Your task to perform on an android device: change the clock style Image 0: 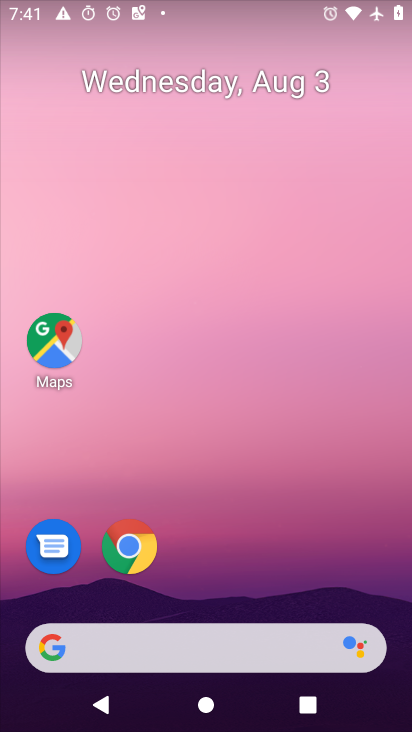
Step 0: drag from (236, 615) to (271, 112)
Your task to perform on an android device: change the clock style Image 1: 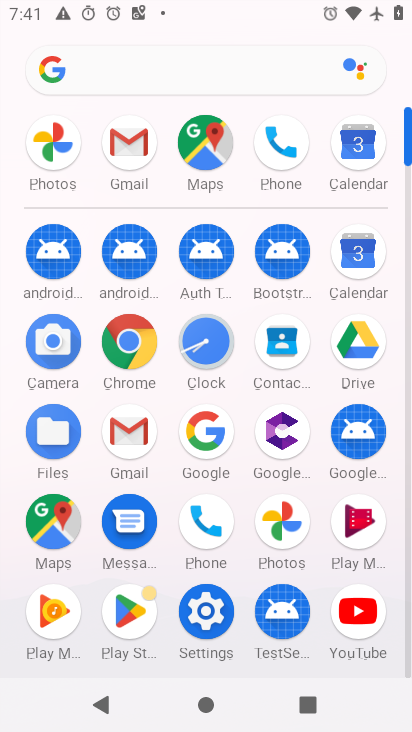
Step 1: click (214, 348)
Your task to perform on an android device: change the clock style Image 2: 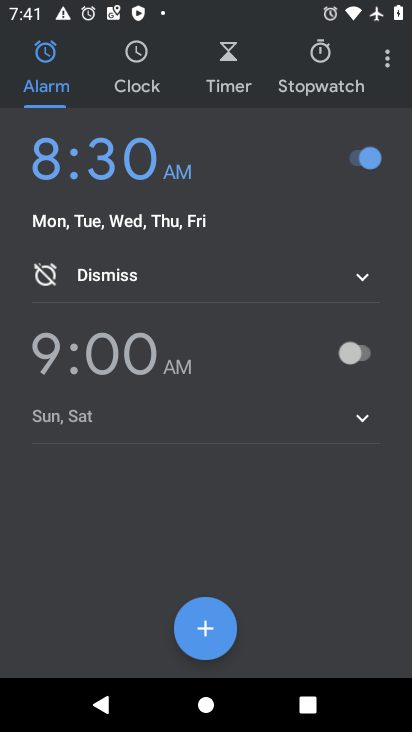
Step 2: click (388, 61)
Your task to perform on an android device: change the clock style Image 3: 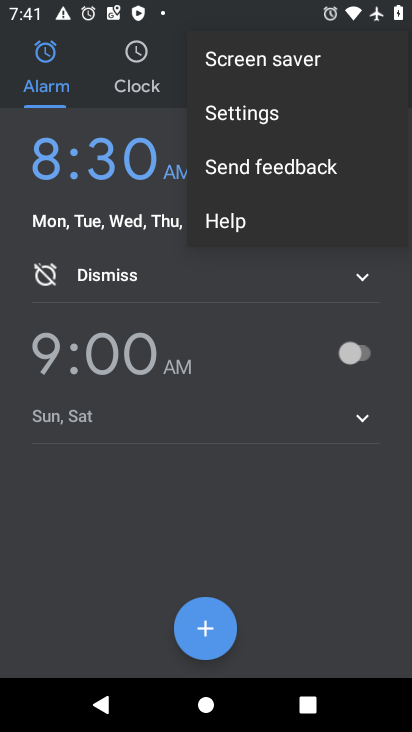
Step 3: click (221, 110)
Your task to perform on an android device: change the clock style Image 4: 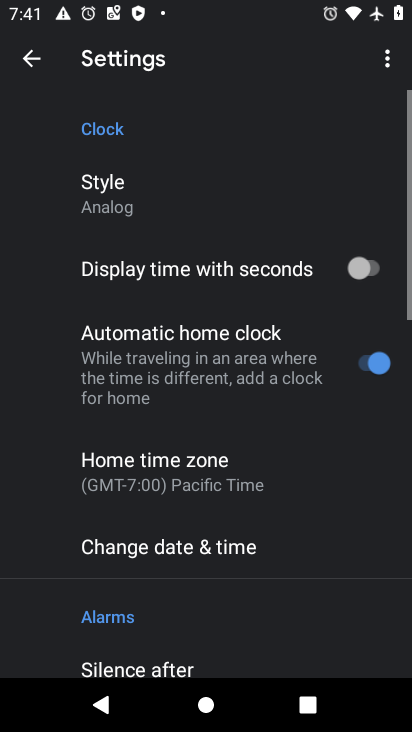
Step 4: click (102, 199)
Your task to perform on an android device: change the clock style Image 5: 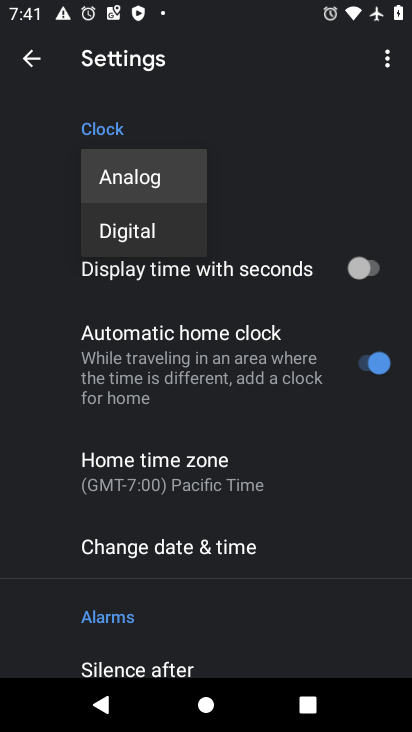
Step 5: click (132, 232)
Your task to perform on an android device: change the clock style Image 6: 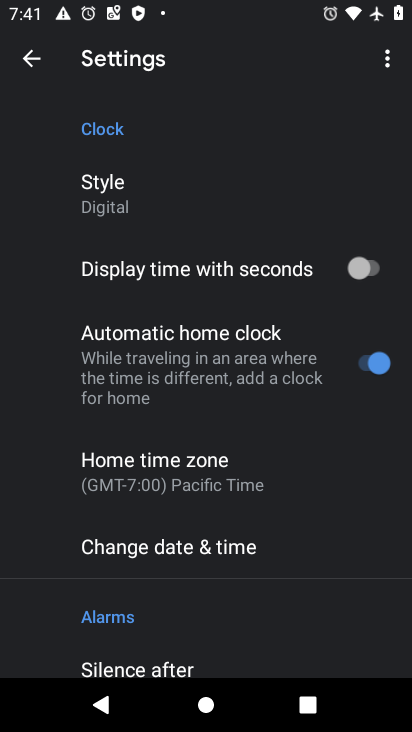
Step 6: task complete